Your task to perform on an android device: check google app version Image 0: 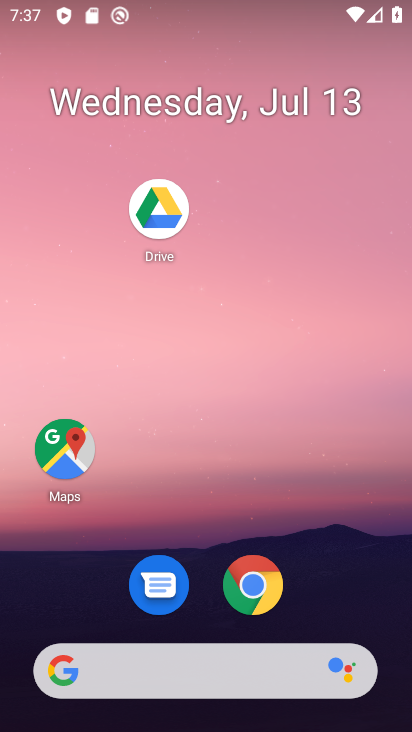
Step 0: drag from (209, 521) to (315, 82)
Your task to perform on an android device: check google app version Image 1: 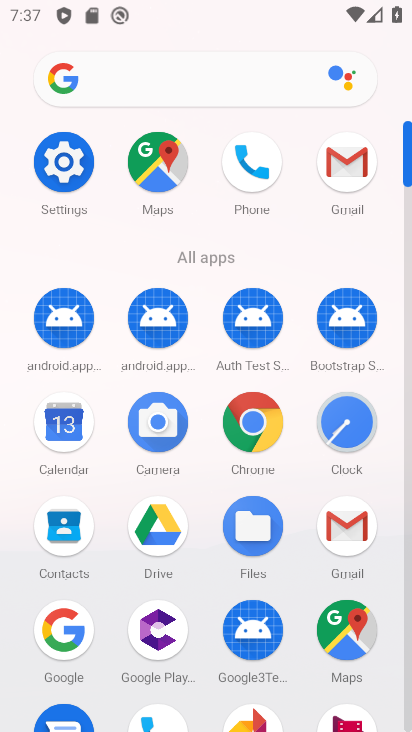
Step 1: click (67, 629)
Your task to perform on an android device: check google app version Image 2: 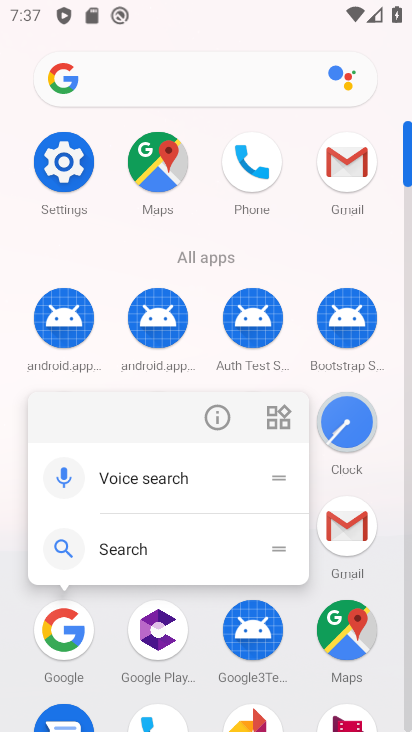
Step 2: click (210, 412)
Your task to perform on an android device: check google app version Image 3: 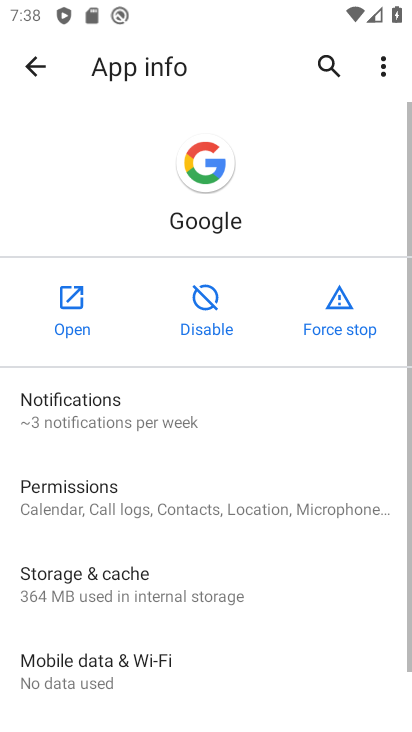
Step 3: drag from (166, 654) to (343, 87)
Your task to perform on an android device: check google app version Image 4: 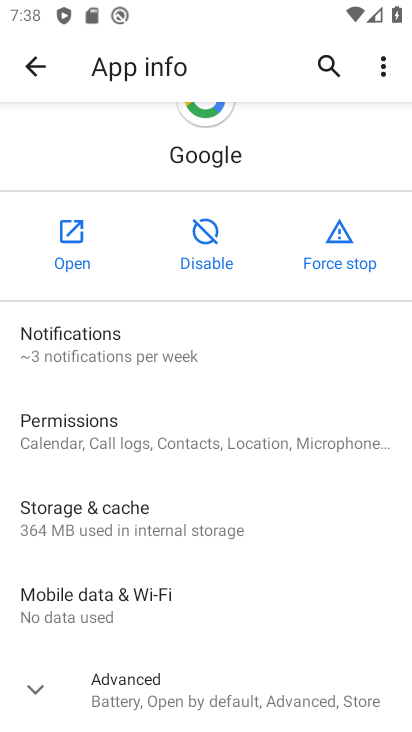
Step 4: click (129, 678)
Your task to perform on an android device: check google app version Image 5: 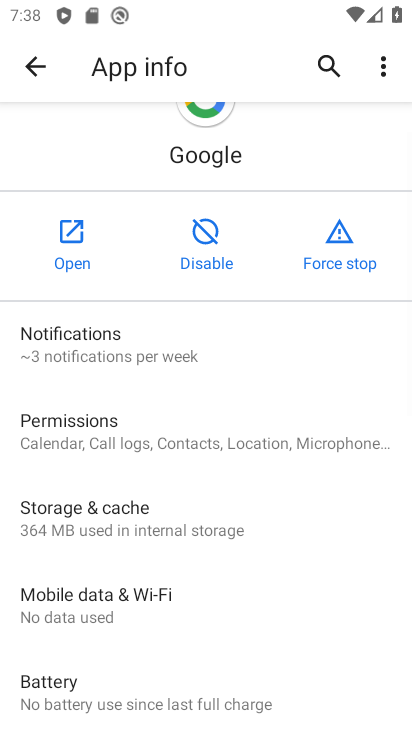
Step 5: task complete